Your task to perform on an android device: See recent photos Image 0: 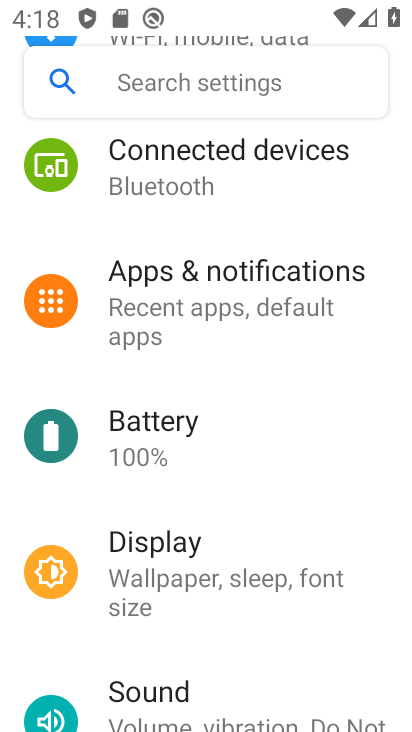
Step 0: press home button
Your task to perform on an android device: See recent photos Image 1: 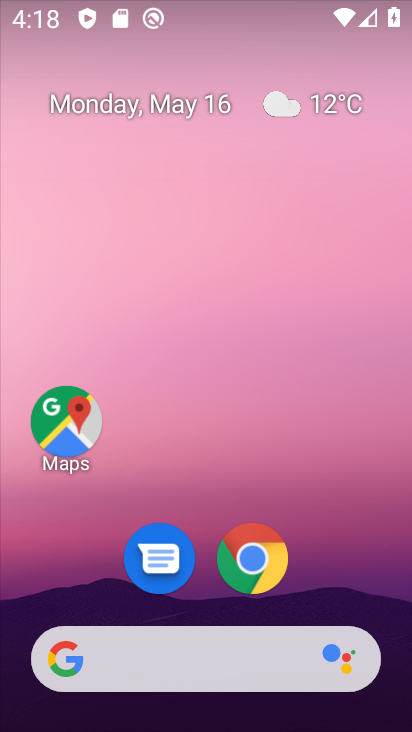
Step 1: drag from (210, 577) to (200, 144)
Your task to perform on an android device: See recent photos Image 2: 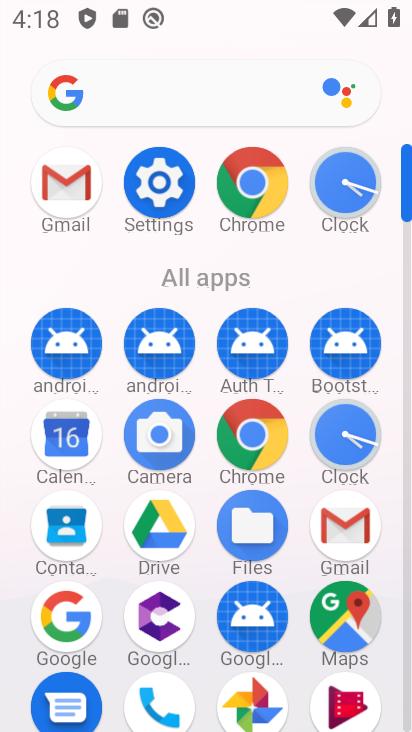
Step 2: drag from (110, 646) to (118, 322)
Your task to perform on an android device: See recent photos Image 3: 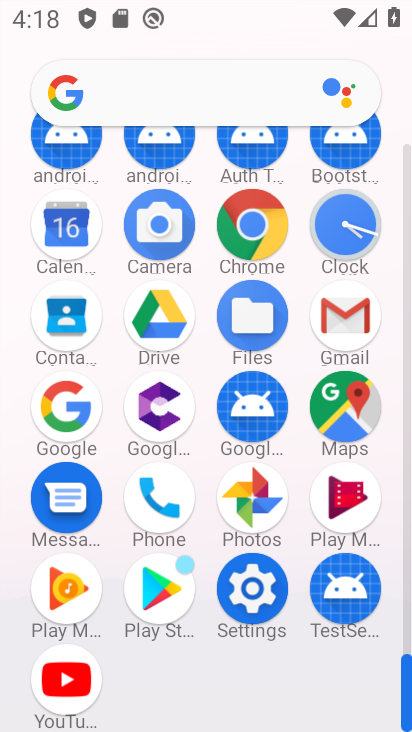
Step 3: click (263, 506)
Your task to perform on an android device: See recent photos Image 4: 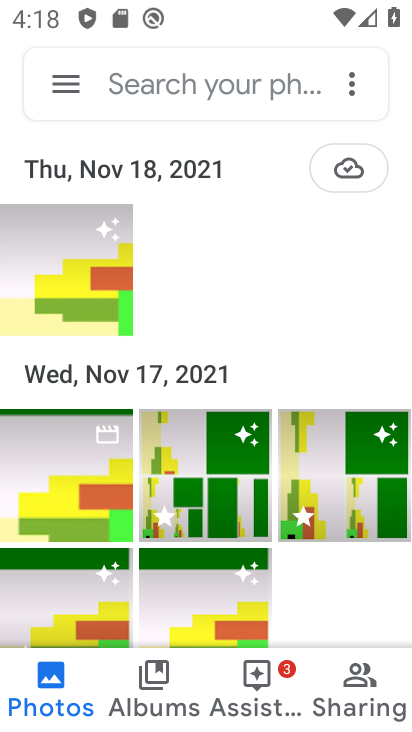
Step 4: task complete